Your task to perform on an android device: turn smart compose on in the gmail app Image 0: 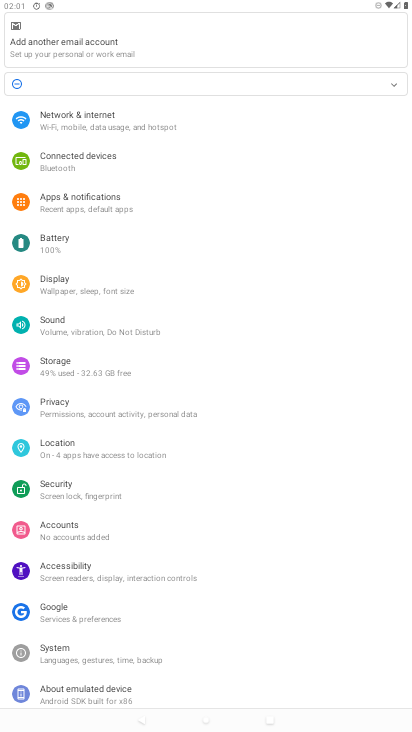
Step 0: press home button
Your task to perform on an android device: turn smart compose on in the gmail app Image 1: 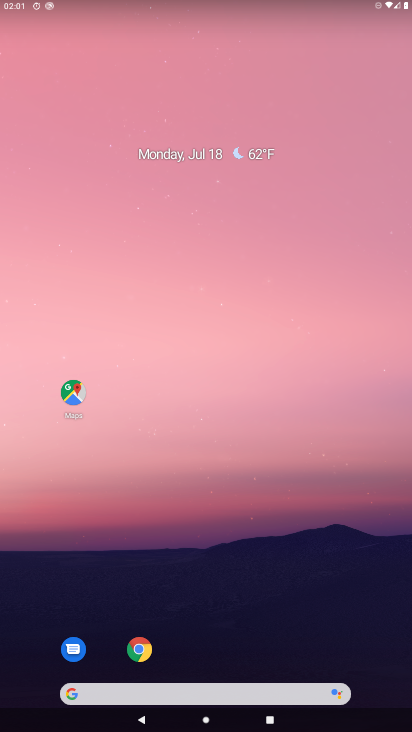
Step 1: drag from (36, 710) to (236, 151)
Your task to perform on an android device: turn smart compose on in the gmail app Image 2: 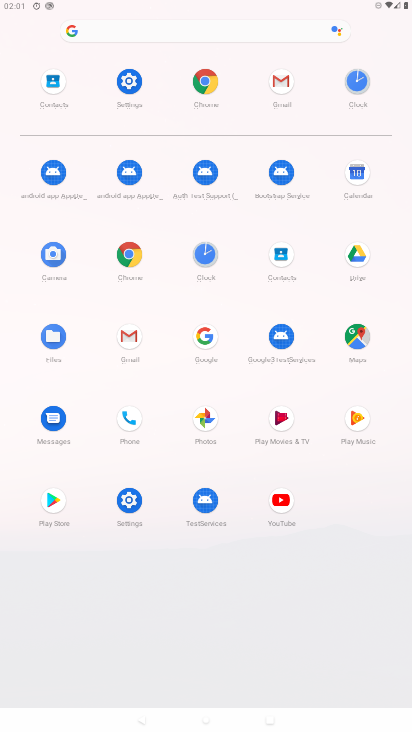
Step 2: click (122, 333)
Your task to perform on an android device: turn smart compose on in the gmail app Image 3: 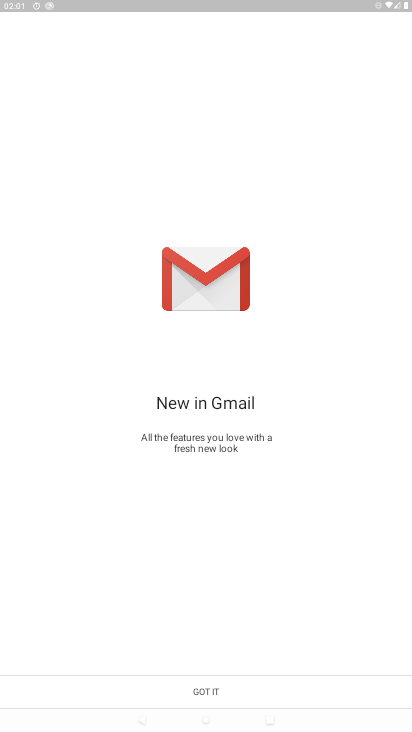
Step 3: click (195, 675)
Your task to perform on an android device: turn smart compose on in the gmail app Image 4: 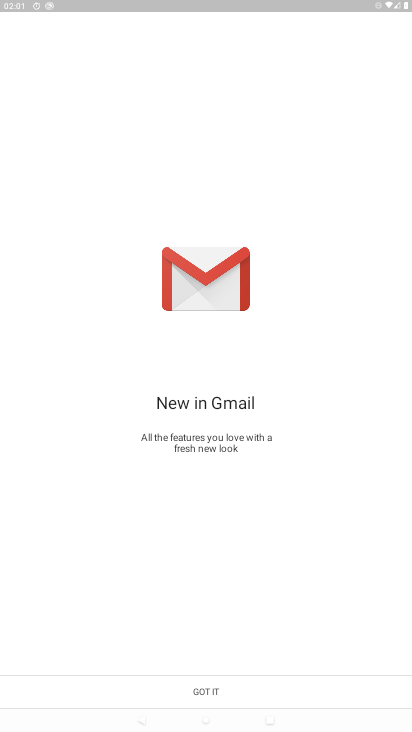
Step 4: click (199, 683)
Your task to perform on an android device: turn smart compose on in the gmail app Image 5: 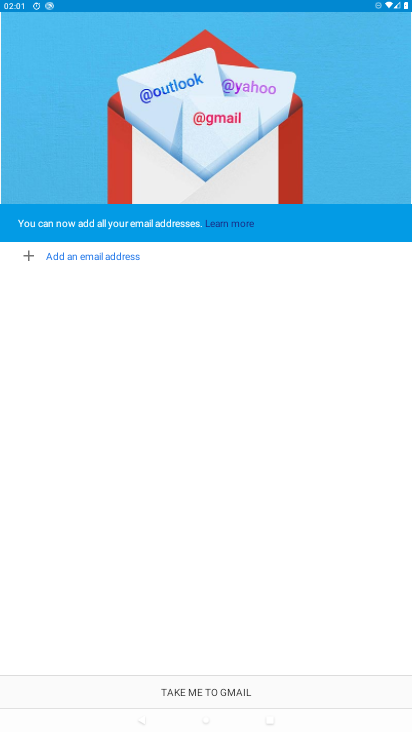
Step 5: click (192, 690)
Your task to perform on an android device: turn smart compose on in the gmail app Image 6: 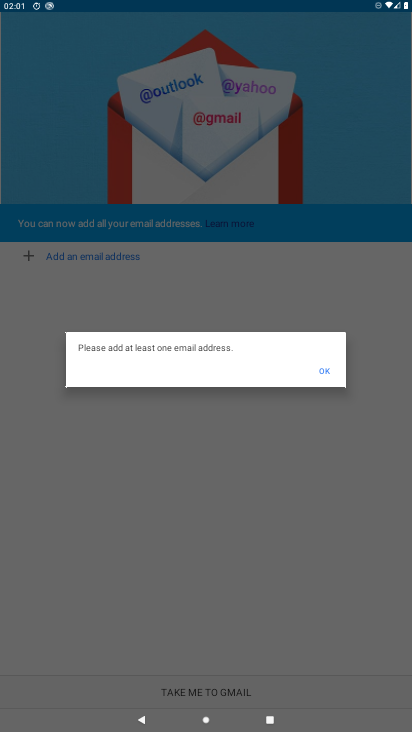
Step 6: task complete